Your task to perform on an android device: turn off data saver in the chrome app Image 0: 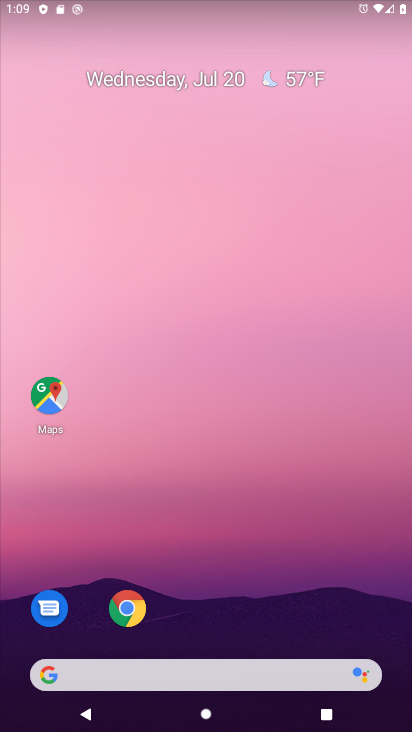
Step 0: click (133, 617)
Your task to perform on an android device: turn off data saver in the chrome app Image 1: 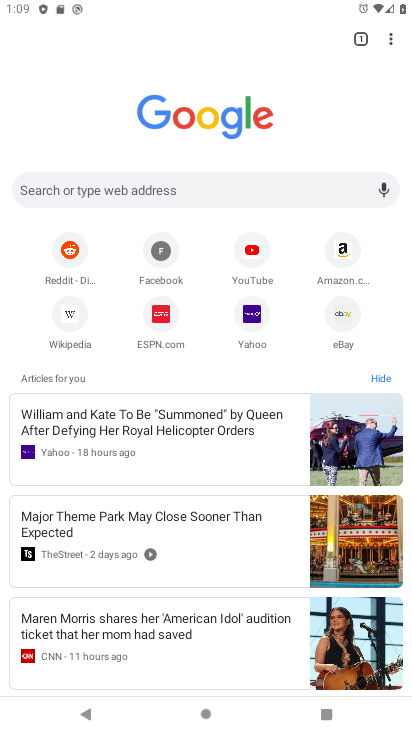
Step 1: click (387, 34)
Your task to perform on an android device: turn off data saver in the chrome app Image 2: 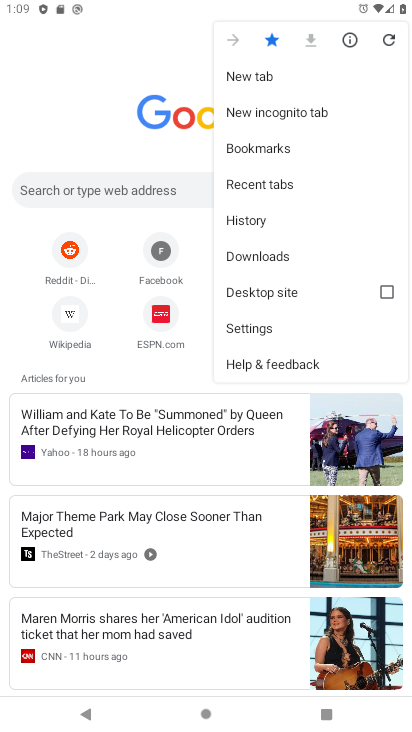
Step 2: click (270, 334)
Your task to perform on an android device: turn off data saver in the chrome app Image 3: 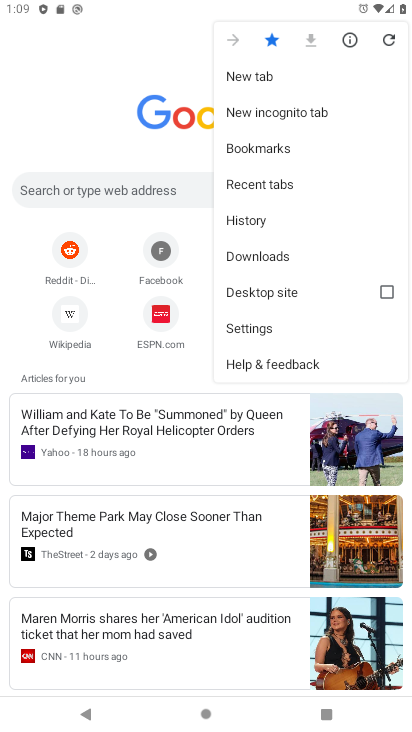
Step 3: click (270, 334)
Your task to perform on an android device: turn off data saver in the chrome app Image 4: 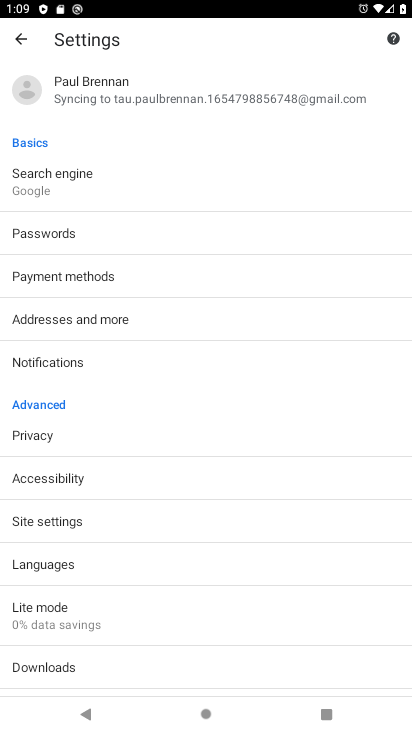
Step 4: click (131, 630)
Your task to perform on an android device: turn off data saver in the chrome app Image 5: 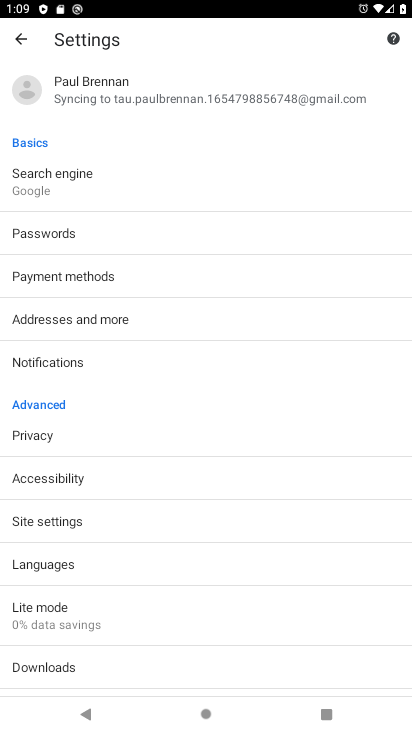
Step 5: click (131, 630)
Your task to perform on an android device: turn off data saver in the chrome app Image 6: 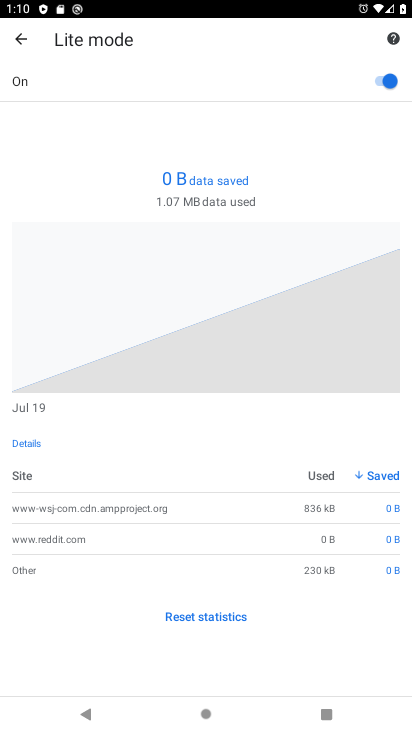
Step 6: click (391, 81)
Your task to perform on an android device: turn off data saver in the chrome app Image 7: 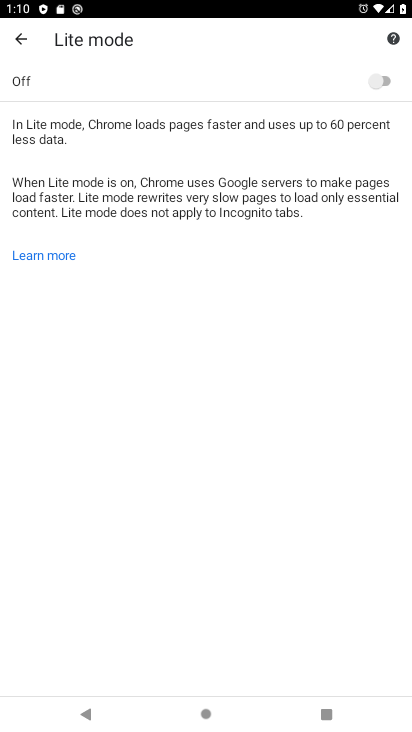
Step 7: task complete